Your task to perform on an android device: Open the Play Movies app and select the watchlist tab. Image 0: 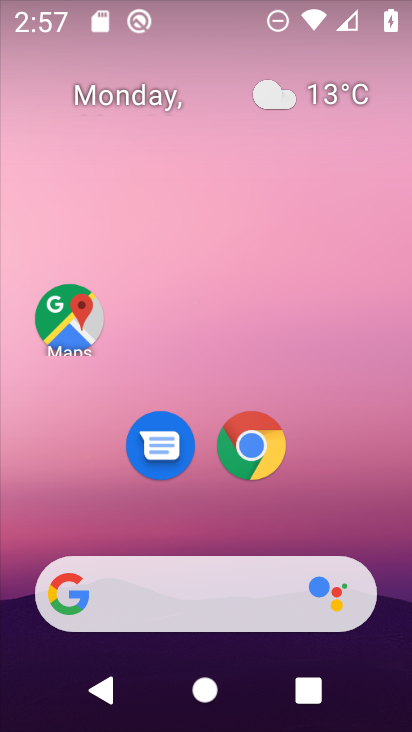
Step 0: click (394, 640)
Your task to perform on an android device: Open the Play Movies app and select the watchlist tab. Image 1: 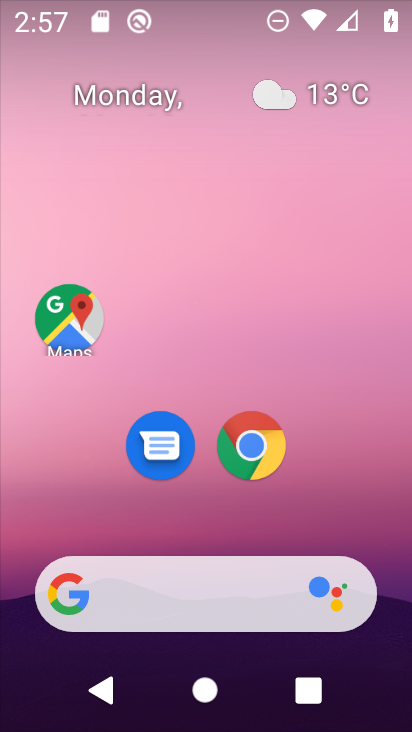
Step 1: drag from (389, 270) to (340, 104)
Your task to perform on an android device: Open the Play Movies app and select the watchlist tab. Image 2: 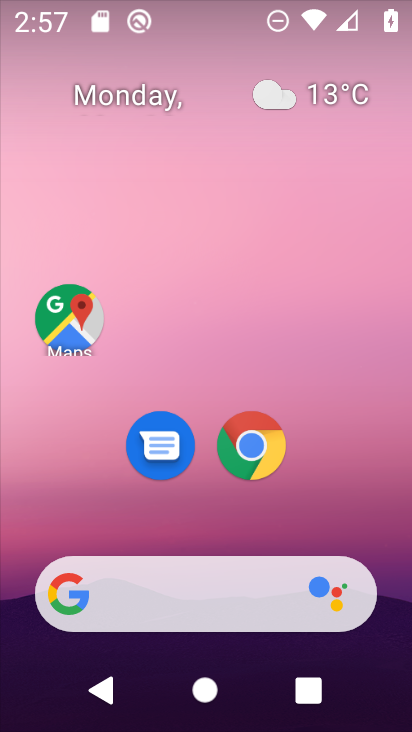
Step 2: drag from (394, 617) to (351, 74)
Your task to perform on an android device: Open the Play Movies app and select the watchlist tab. Image 3: 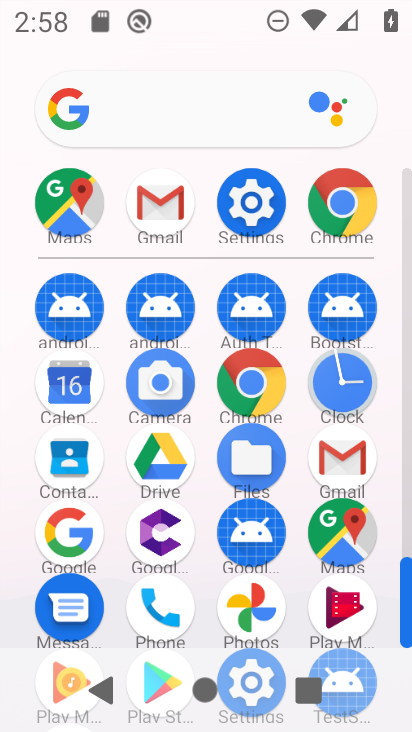
Step 3: click (343, 616)
Your task to perform on an android device: Open the Play Movies app and select the watchlist tab. Image 4: 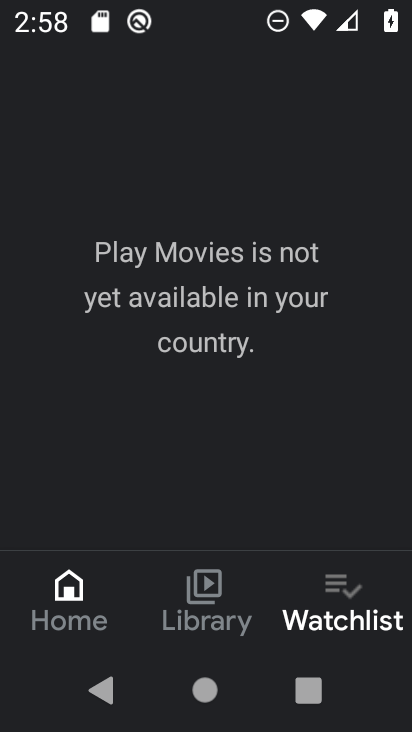
Step 4: task complete